Your task to perform on an android device: create a new album in the google photos Image 0: 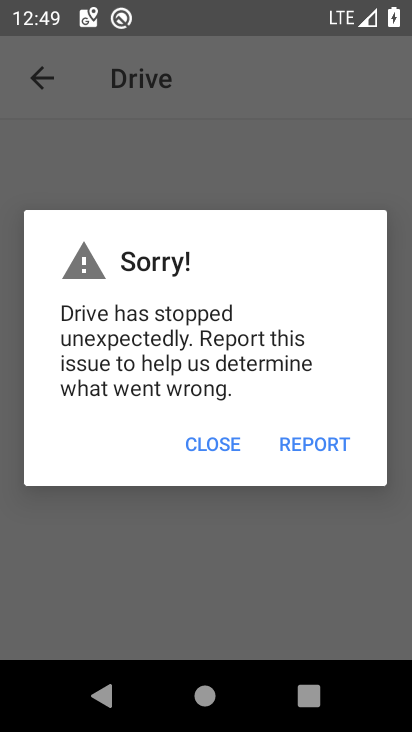
Step 0: click (232, 441)
Your task to perform on an android device: create a new album in the google photos Image 1: 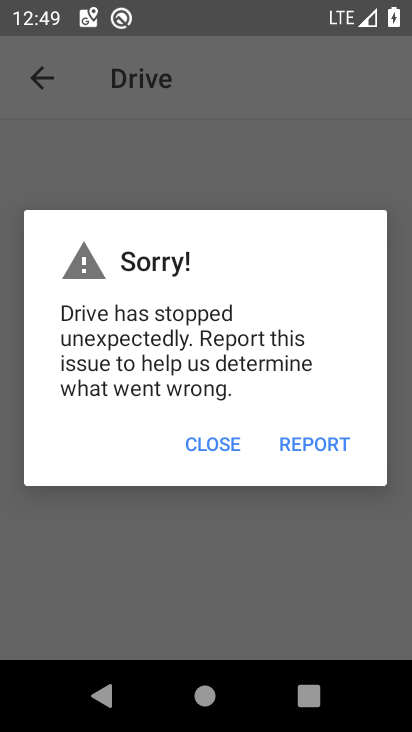
Step 1: click (229, 440)
Your task to perform on an android device: create a new album in the google photos Image 2: 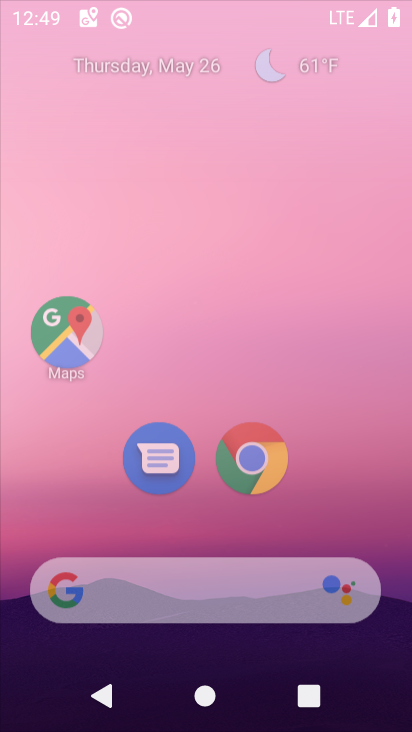
Step 2: click (224, 439)
Your task to perform on an android device: create a new album in the google photos Image 3: 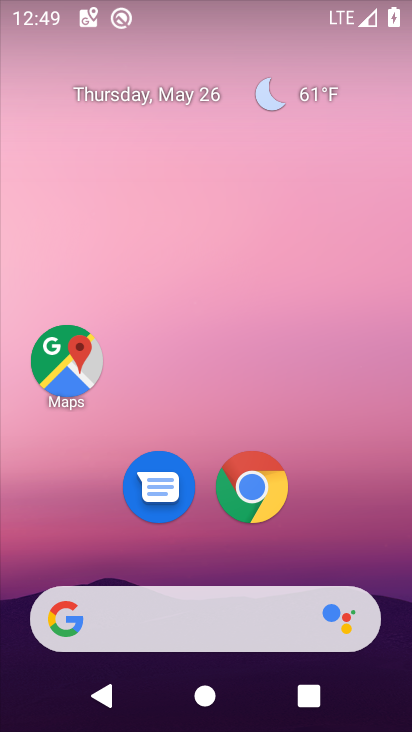
Step 3: drag from (301, 698) to (306, 173)
Your task to perform on an android device: create a new album in the google photos Image 4: 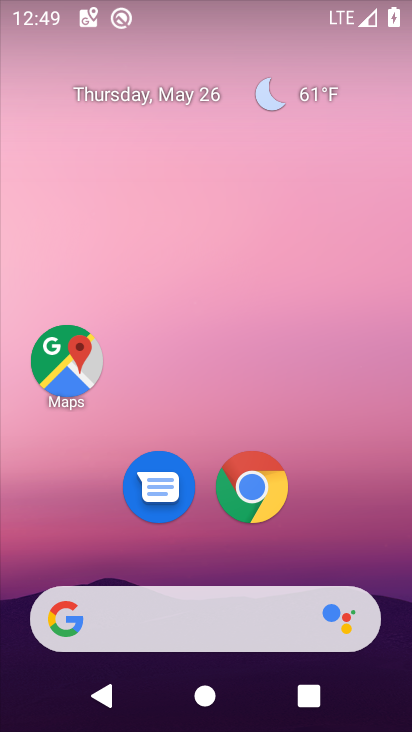
Step 4: drag from (228, 688) to (204, 222)
Your task to perform on an android device: create a new album in the google photos Image 5: 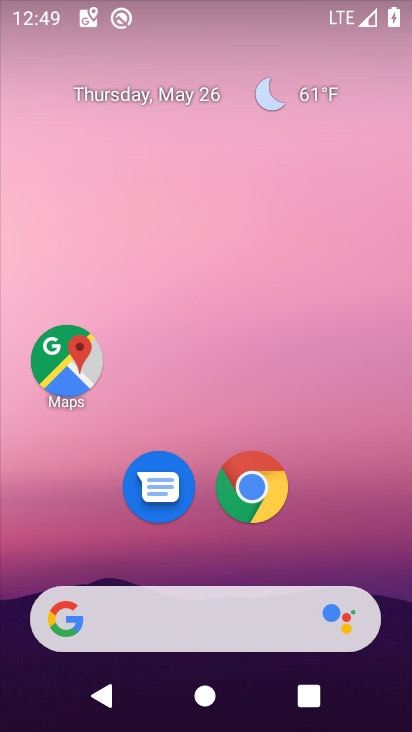
Step 5: drag from (253, 655) to (250, 175)
Your task to perform on an android device: create a new album in the google photos Image 6: 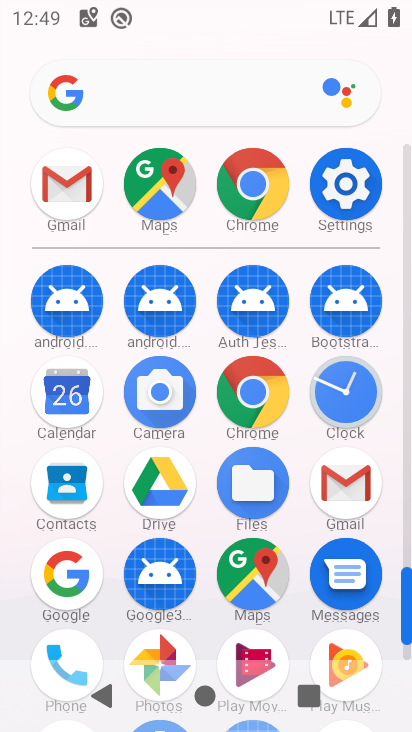
Step 6: drag from (291, 634) to (263, 99)
Your task to perform on an android device: create a new album in the google photos Image 7: 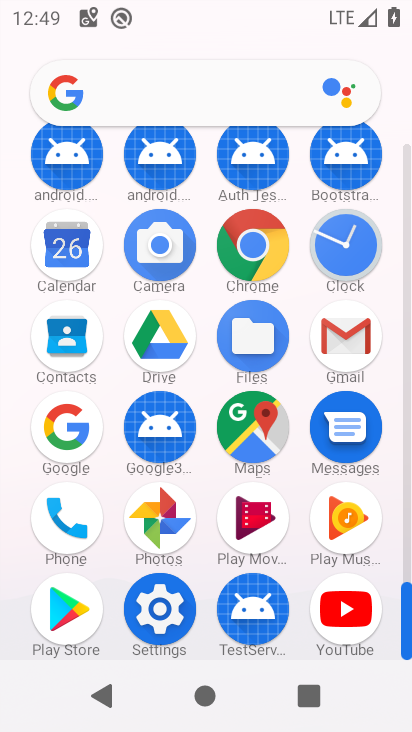
Step 7: click (161, 526)
Your task to perform on an android device: create a new album in the google photos Image 8: 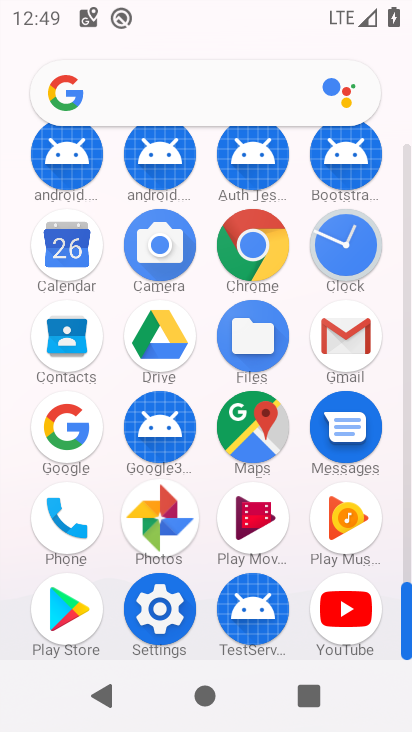
Step 8: click (164, 525)
Your task to perform on an android device: create a new album in the google photos Image 9: 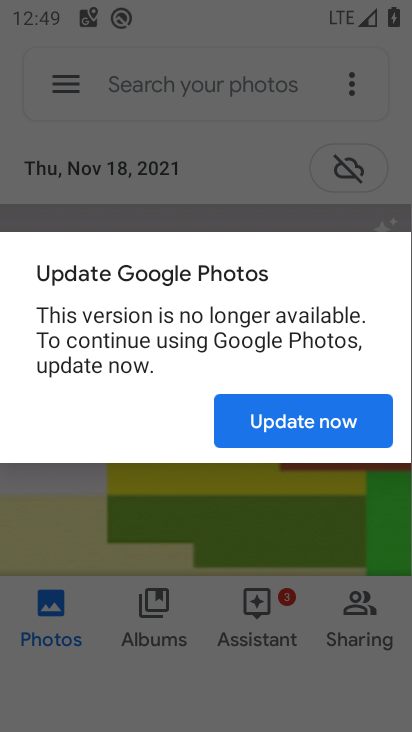
Step 9: click (168, 523)
Your task to perform on an android device: create a new album in the google photos Image 10: 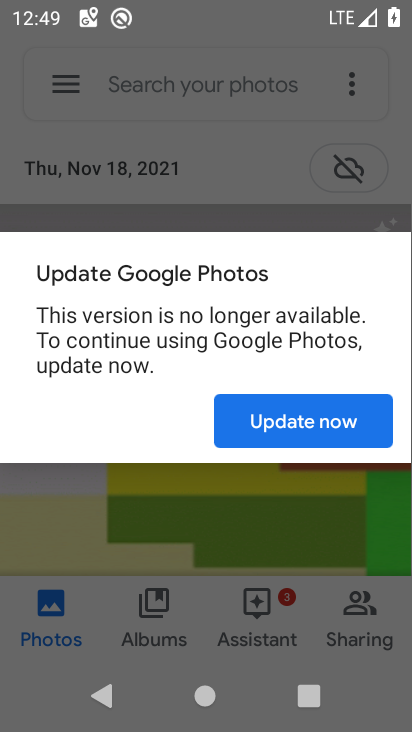
Step 10: click (169, 523)
Your task to perform on an android device: create a new album in the google photos Image 11: 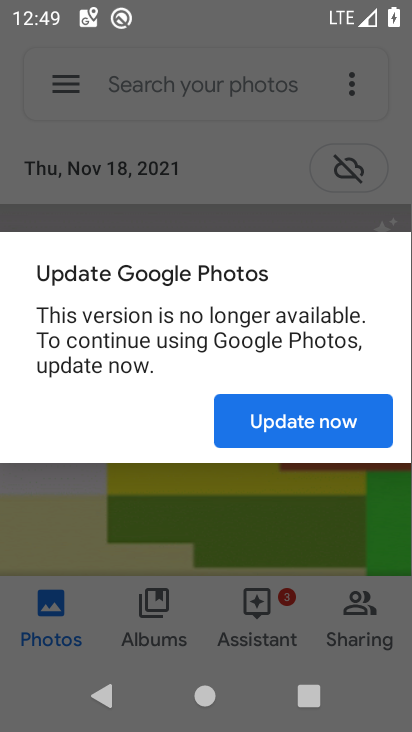
Step 11: click (294, 420)
Your task to perform on an android device: create a new album in the google photos Image 12: 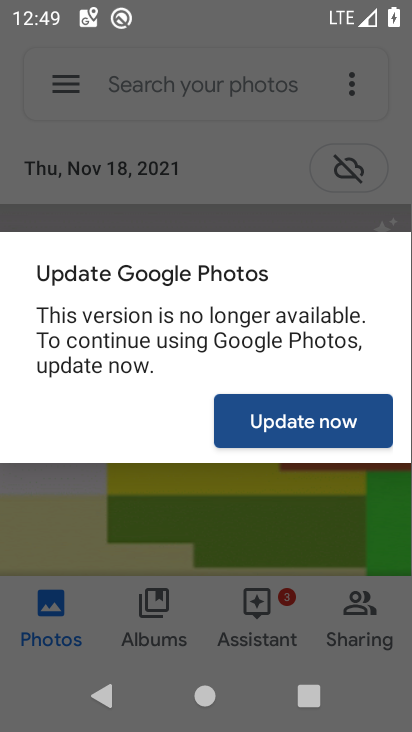
Step 12: click (295, 418)
Your task to perform on an android device: create a new album in the google photos Image 13: 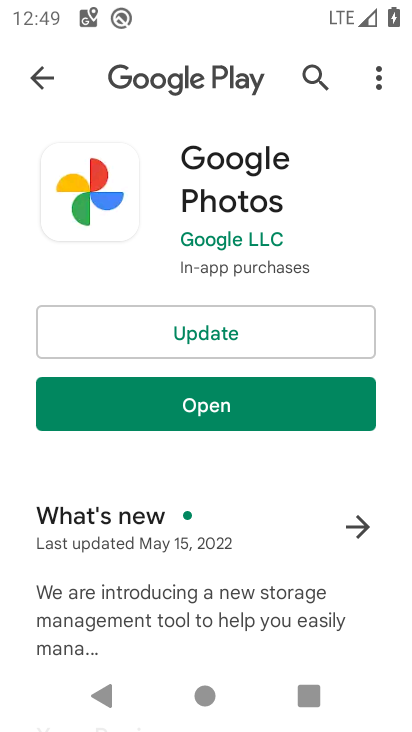
Step 13: click (185, 332)
Your task to perform on an android device: create a new album in the google photos Image 14: 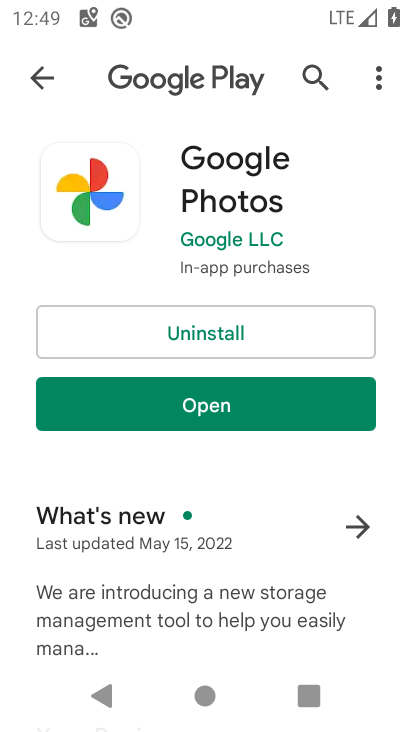
Step 14: click (217, 404)
Your task to perform on an android device: create a new album in the google photos Image 15: 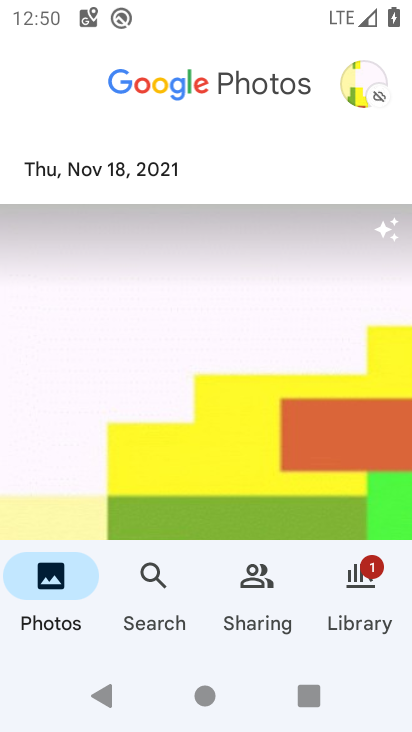
Step 15: task complete